Your task to perform on an android device: turn on wifi Image 0: 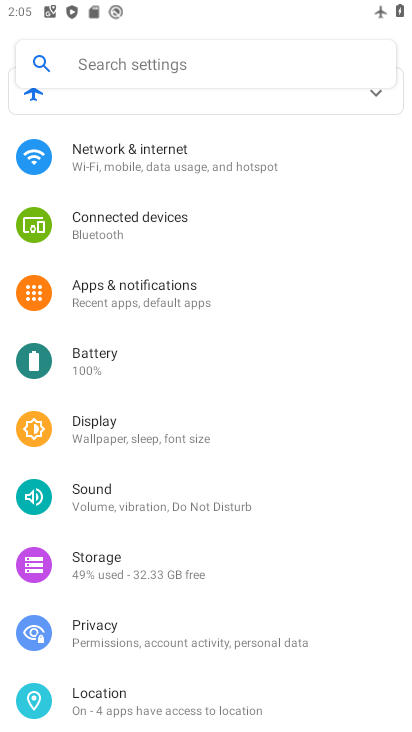
Step 0: press home button
Your task to perform on an android device: turn on wifi Image 1: 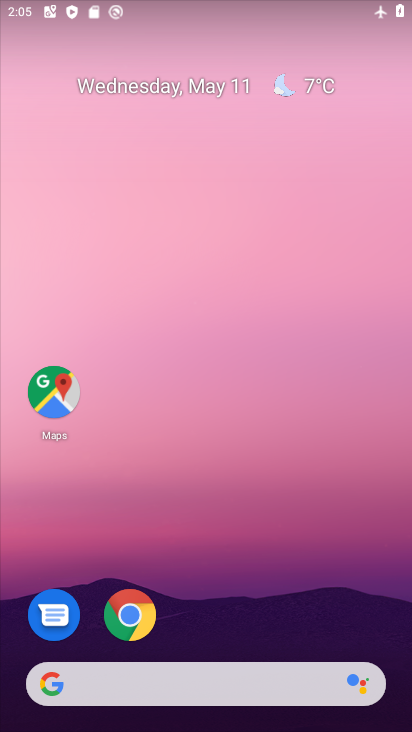
Step 1: drag from (275, 558) to (302, 87)
Your task to perform on an android device: turn on wifi Image 2: 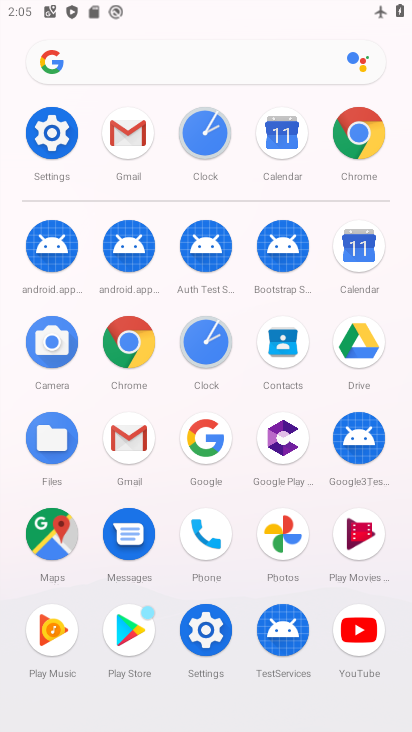
Step 2: click (39, 121)
Your task to perform on an android device: turn on wifi Image 3: 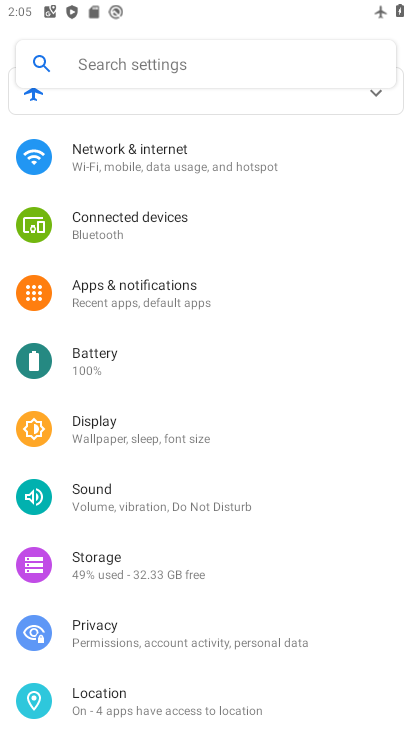
Step 3: click (214, 167)
Your task to perform on an android device: turn on wifi Image 4: 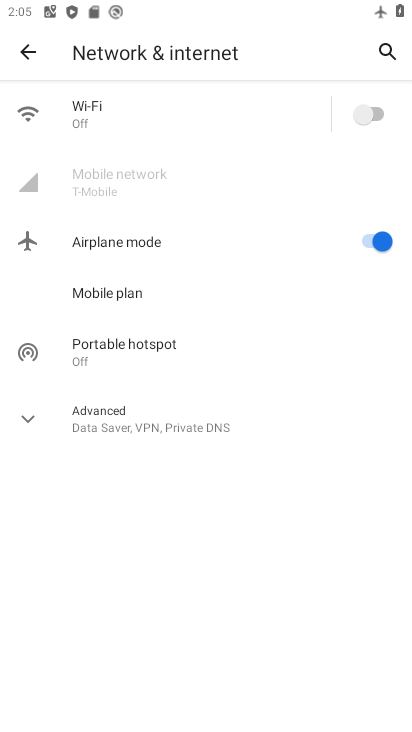
Step 4: click (371, 116)
Your task to perform on an android device: turn on wifi Image 5: 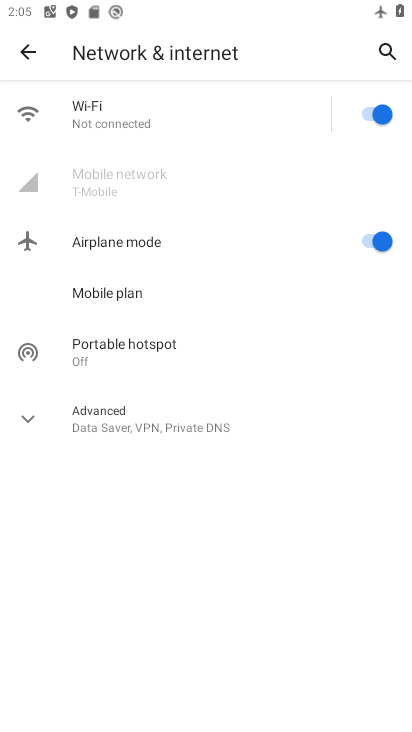
Step 5: task complete